Your task to perform on an android device: turn off sleep mode Image 0: 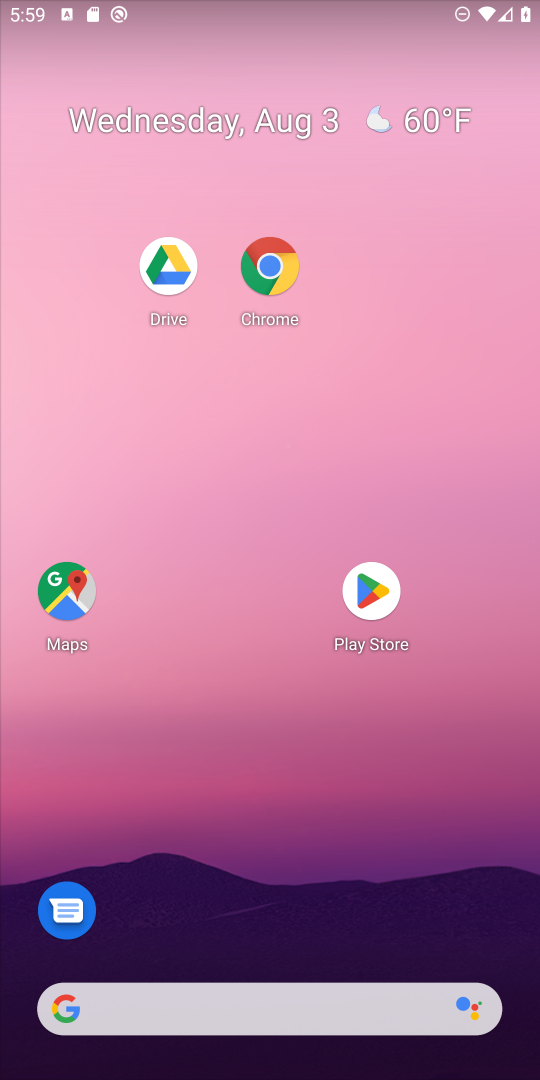
Step 0: drag from (440, 909) to (531, 9)
Your task to perform on an android device: turn off sleep mode Image 1: 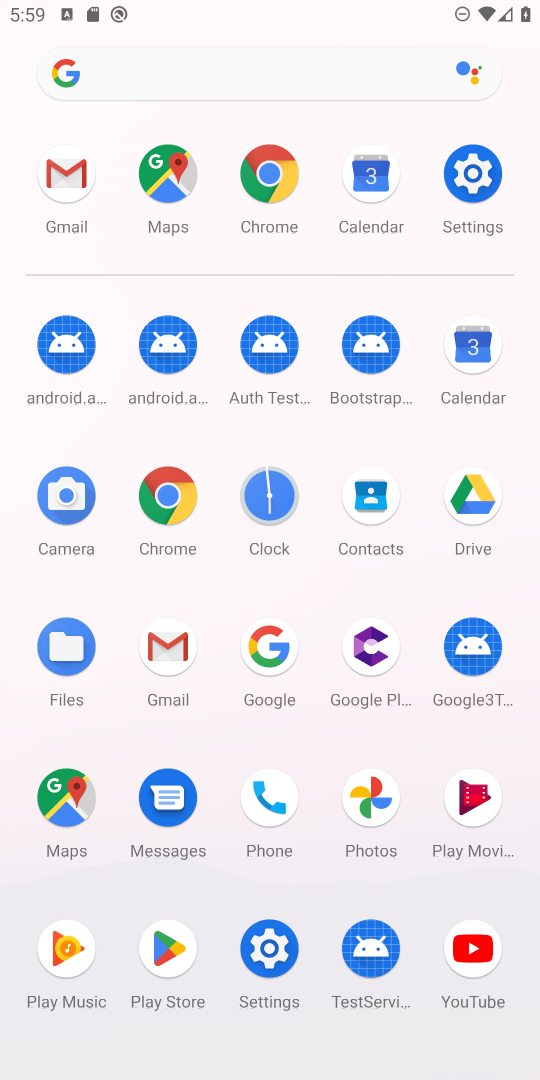
Step 1: press home button
Your task to perform on an android device: turn off sleep mode Image 2: 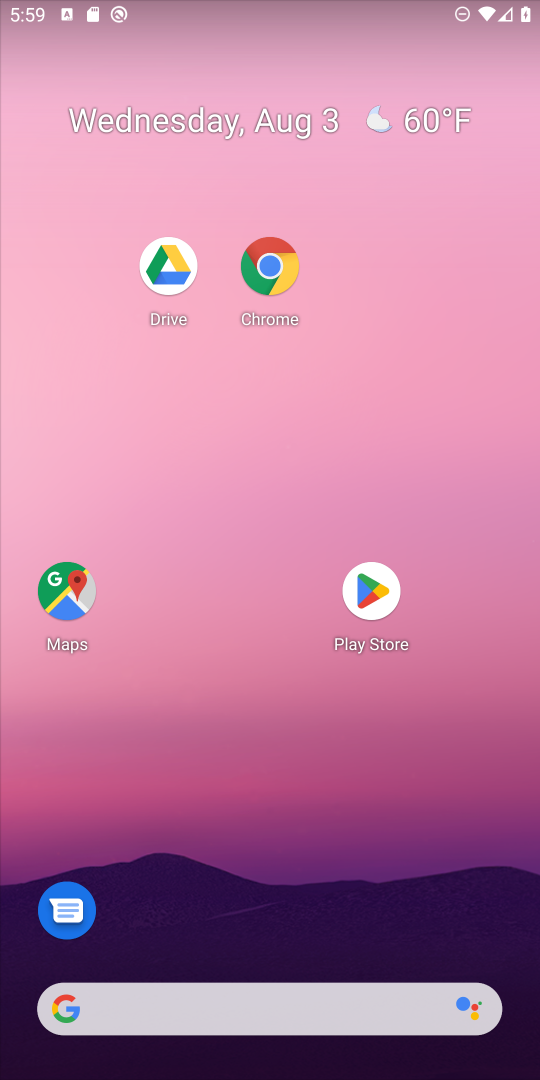
Step 2: drag from (255, 1007) to (492, 0)
Your task to perform on an android device: turn off sleep mode Image 3: 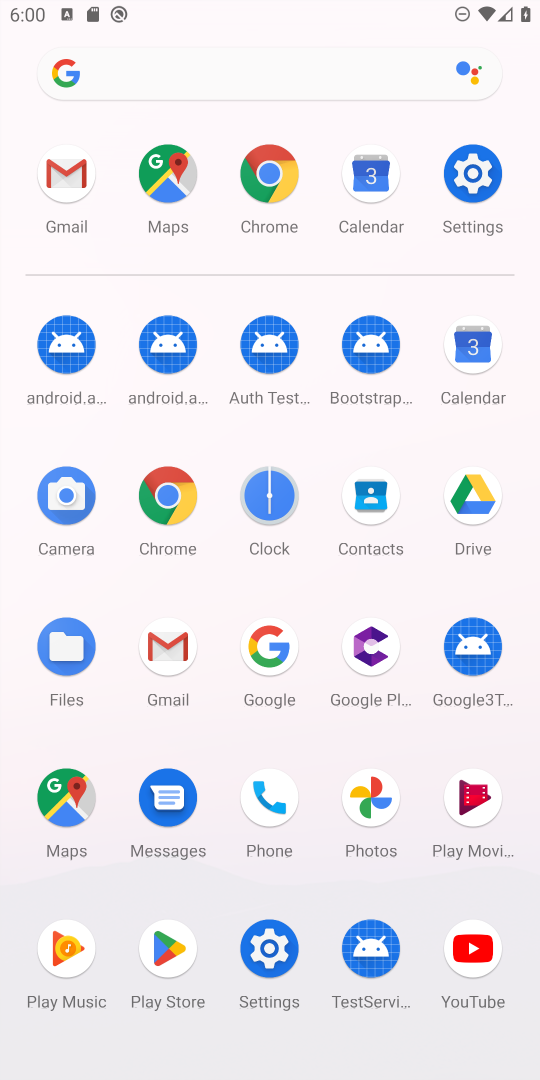
Step 3: click (487, 168)
Your task to perform on an android device: turn off sleep mode Image 4: 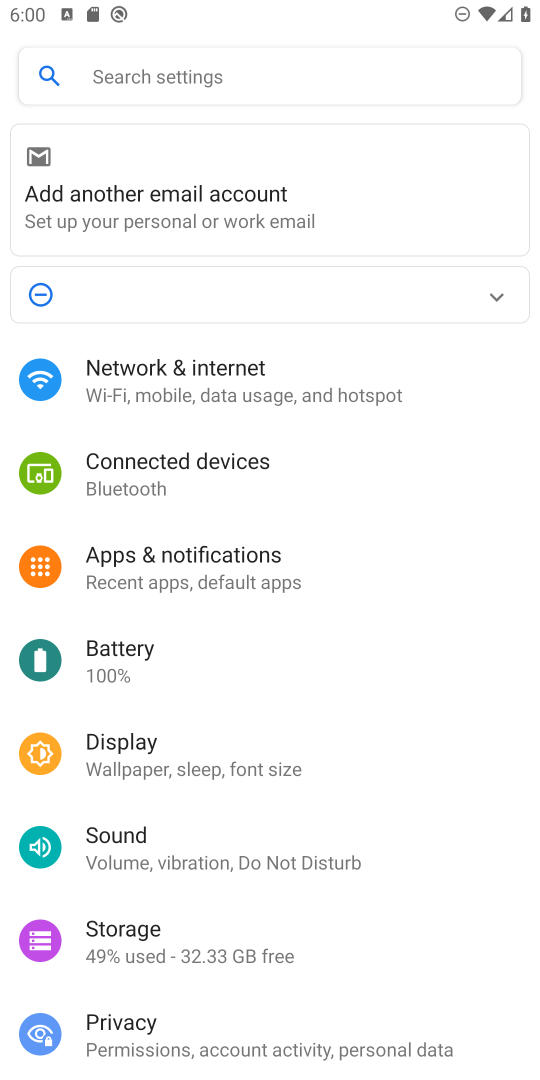
Step 4: click (246, 757)
Your task to perform on an android device: turn off sleep mode Image 5: 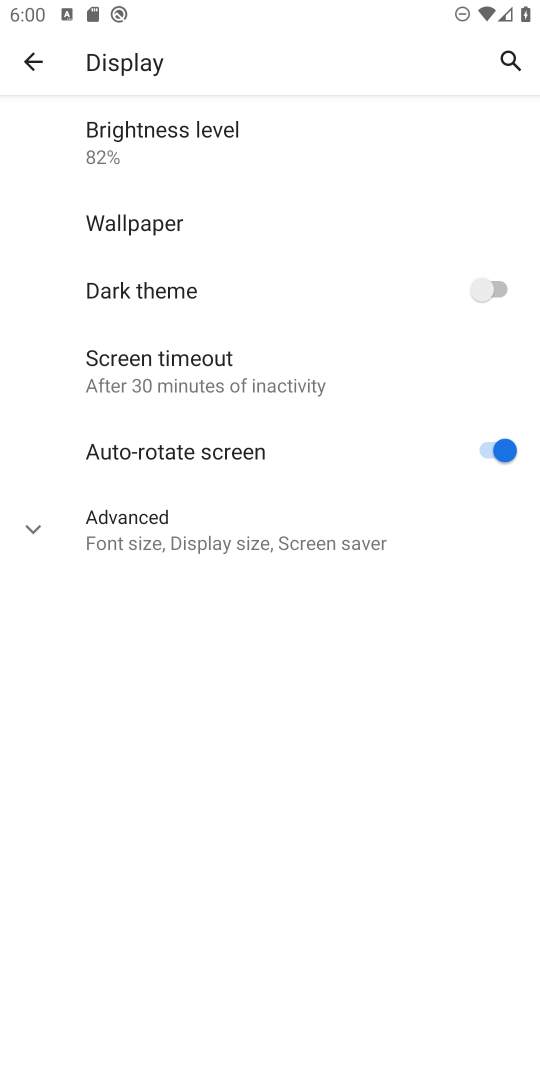
Step 5: task complete